Your task to perform on an android device: Do I have any events today? Image 0: 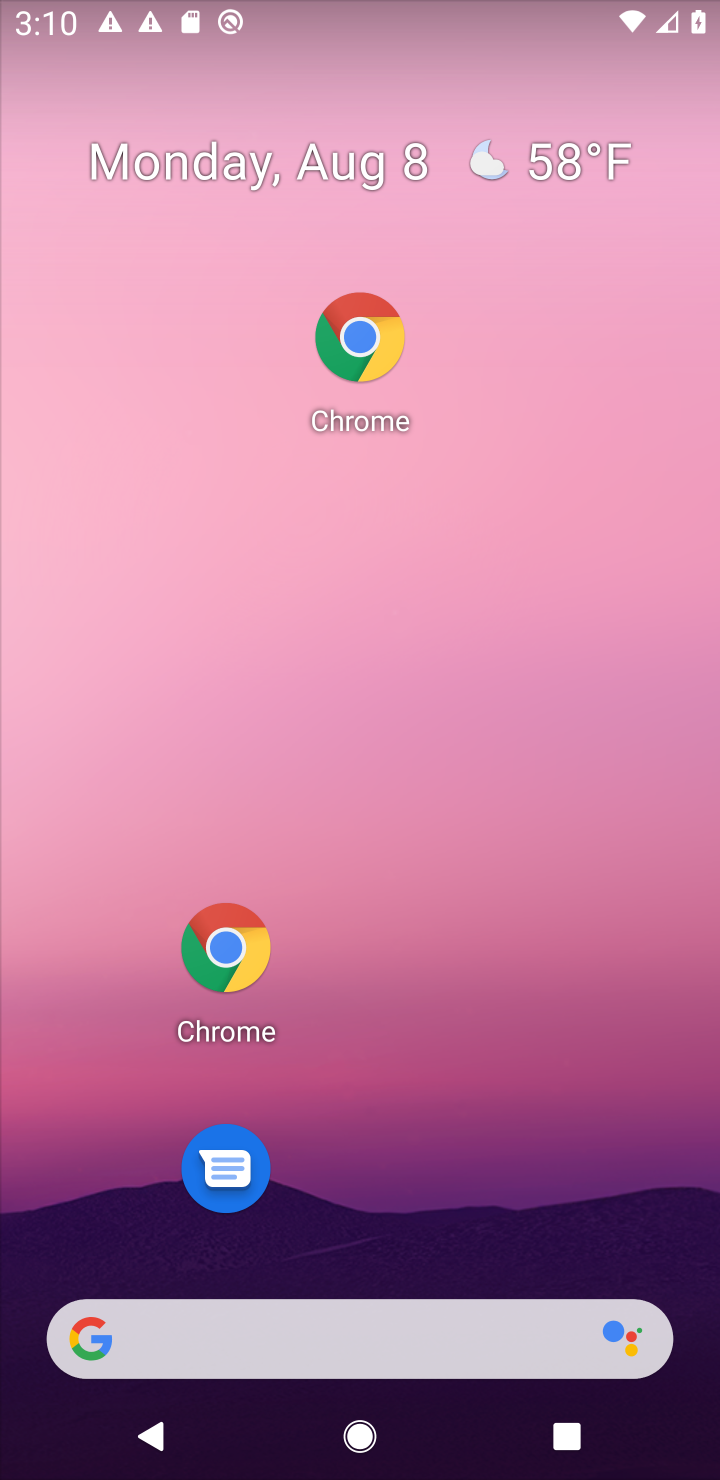
Step 0: drag from (456, 495) to (403, 6)
Your task to perform on an android device: Do I have any events today? Image 1: 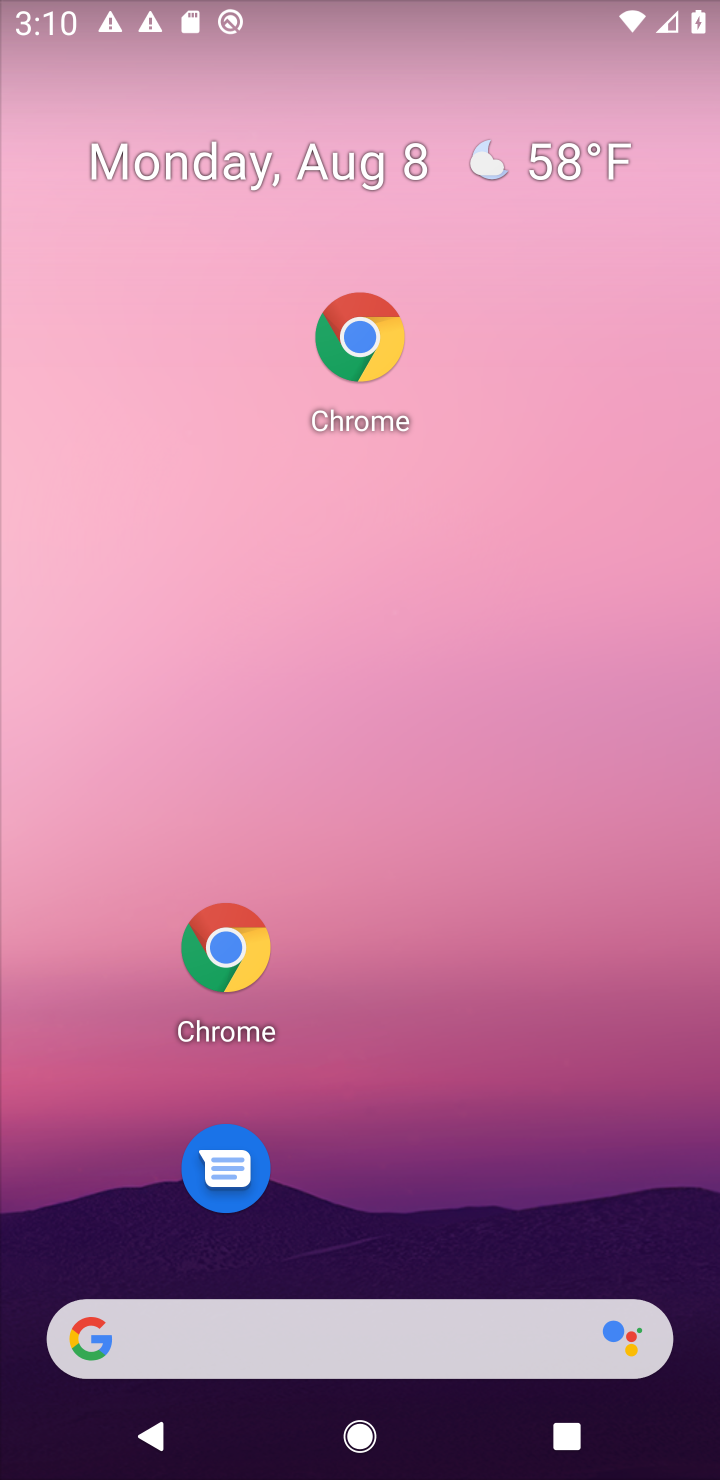
Step 1: drag from (518, 1258) to (484, 12)
Your task to perform on an android device: Do I have any events today? Image 2: 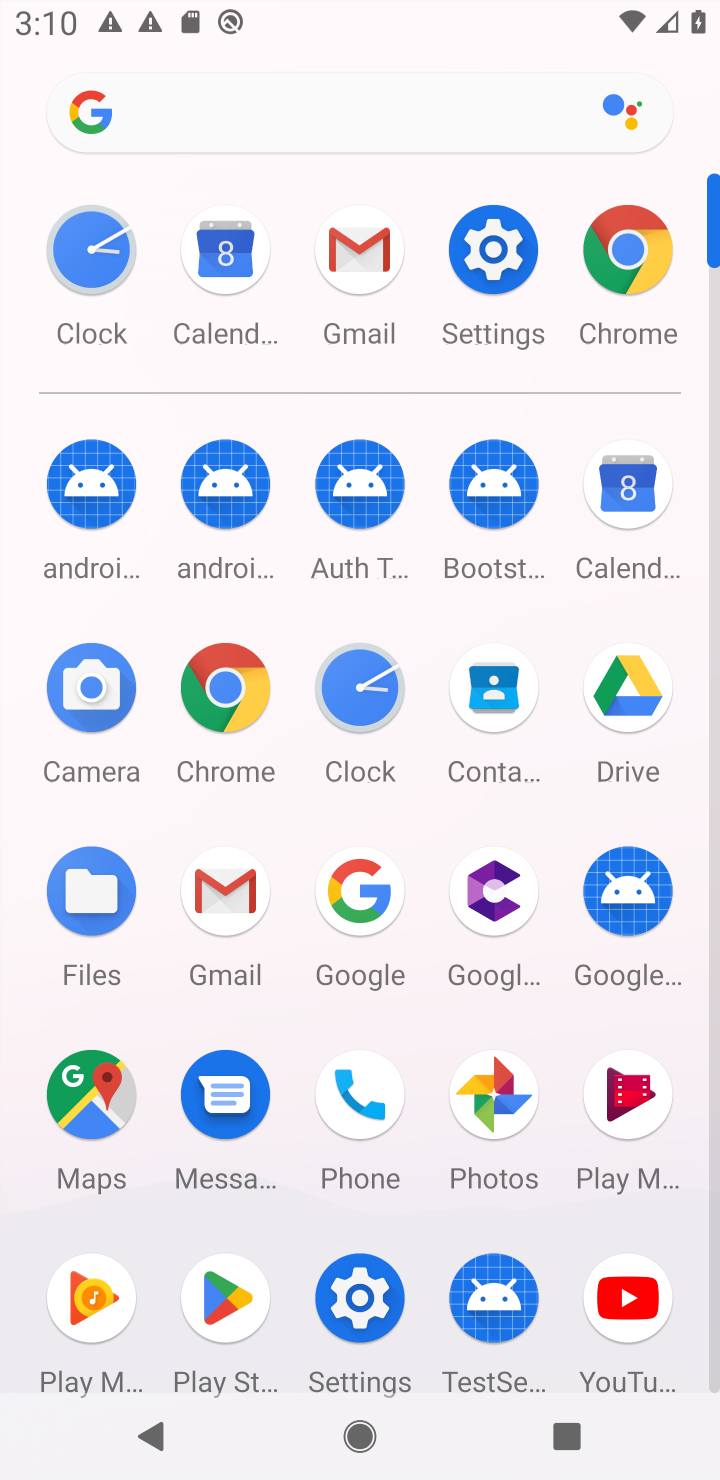
Step 2: click (506, 259)
Your task to perform on an android device: Do I have any events today? Image 3: 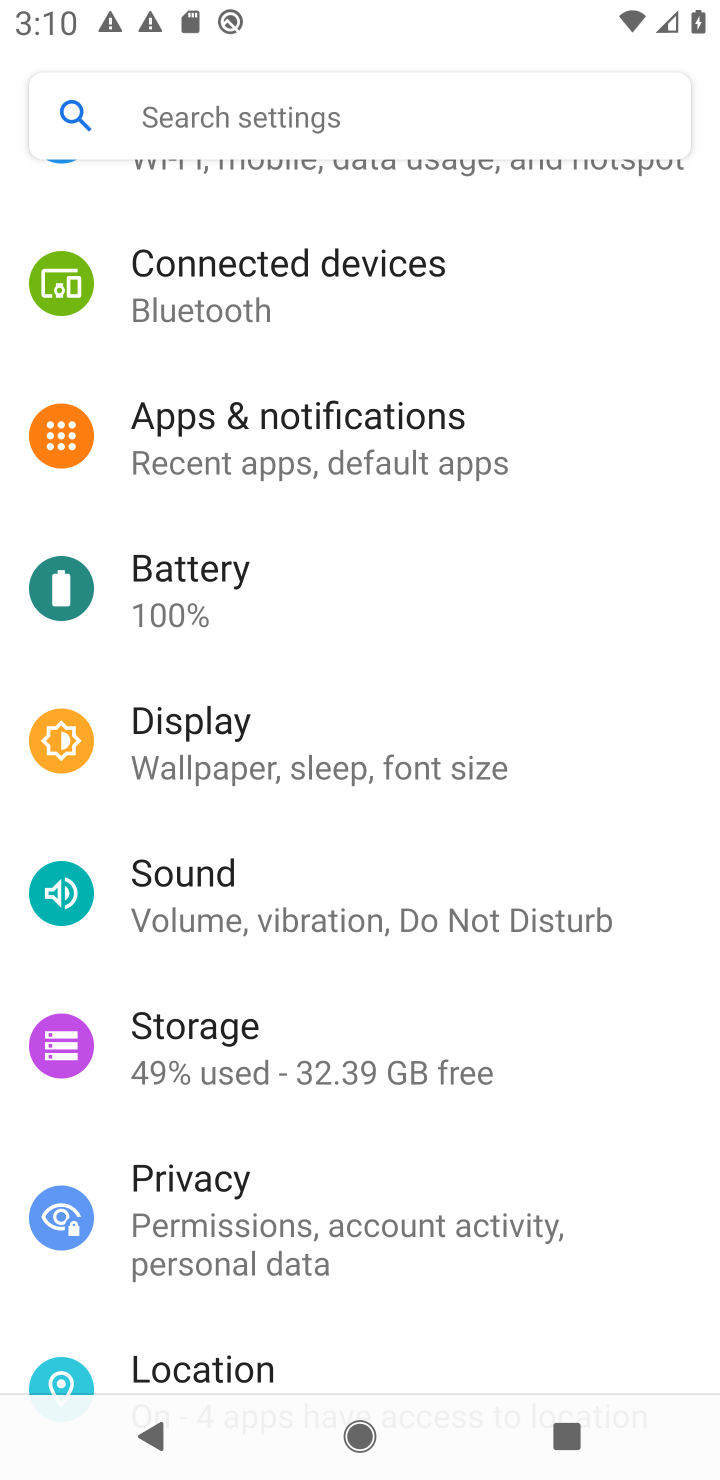
Step 3: click (342, 733)
Your task to perform on an android device: Do I have any events today? Image 4: 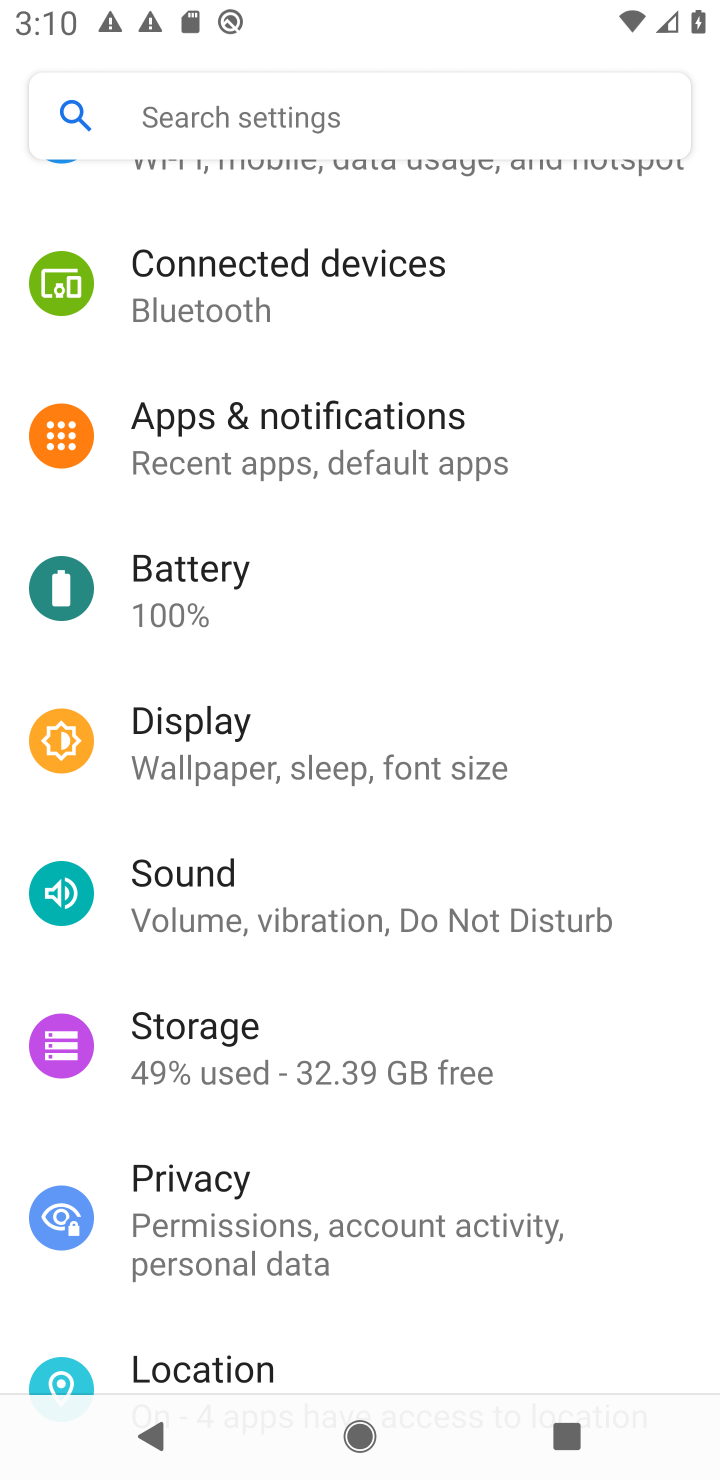
Step 4: task complete